Your task to perform on an android device: Turn on the flashlight Image 0: 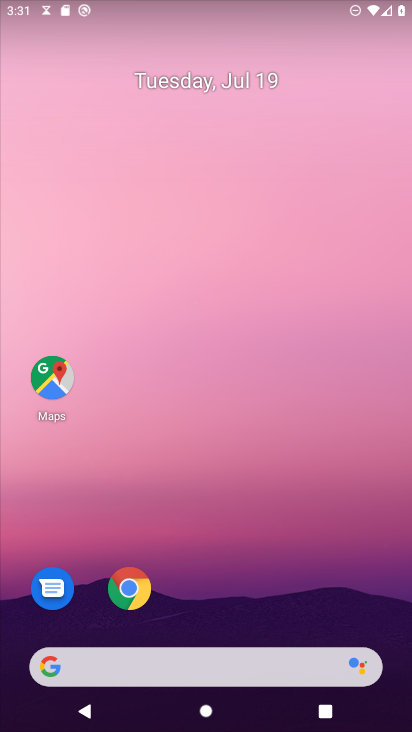
Step 0: drag from (202, 554) to (227, 105)
Your task to perform on an android device: Turn on the flashlight Image 1: 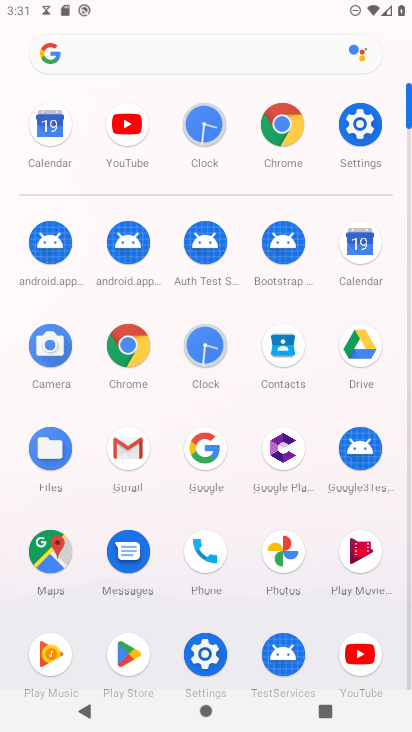
Step 1: click (353, 126)
Your task to perform on an android device: Turn on the flashlight Image 2: 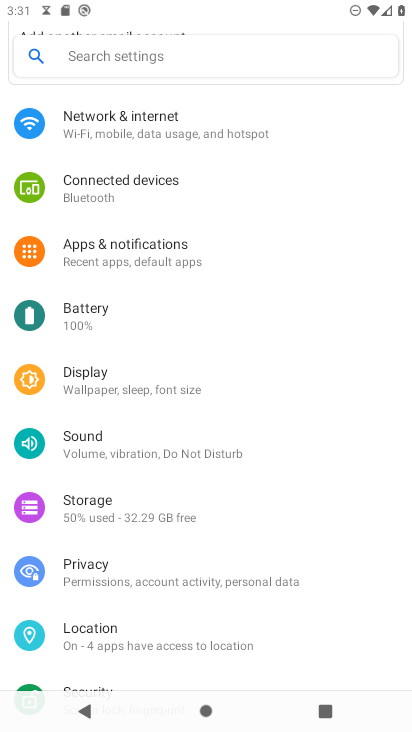
Step 2: task complete